Your task to perform on an android device: change the clock display to analog Image 0: 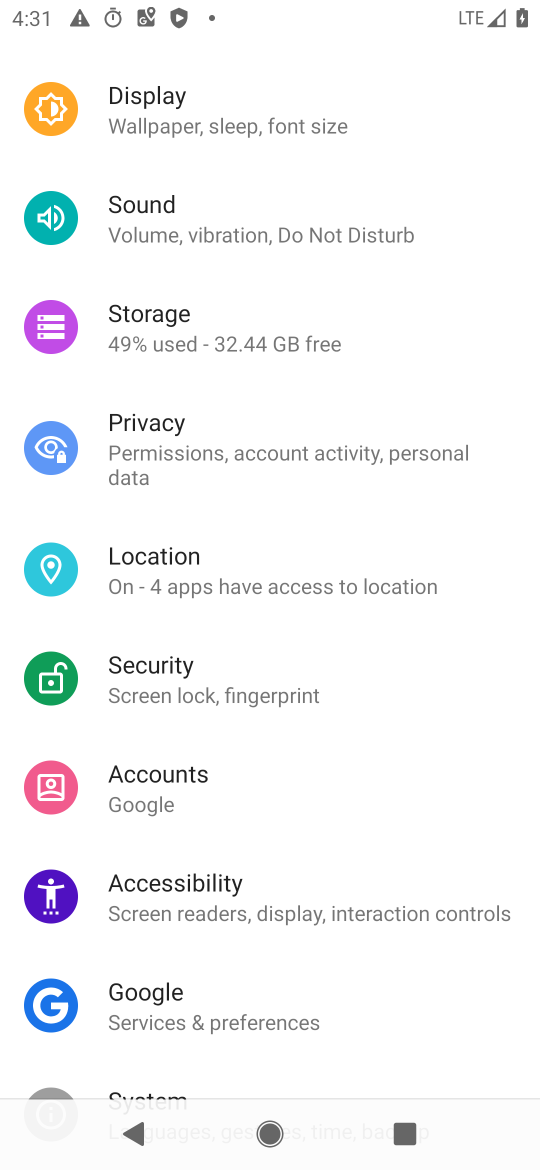
Step 0: press home button
Your task to perform on an android device: change the clock display to analog Image 1: 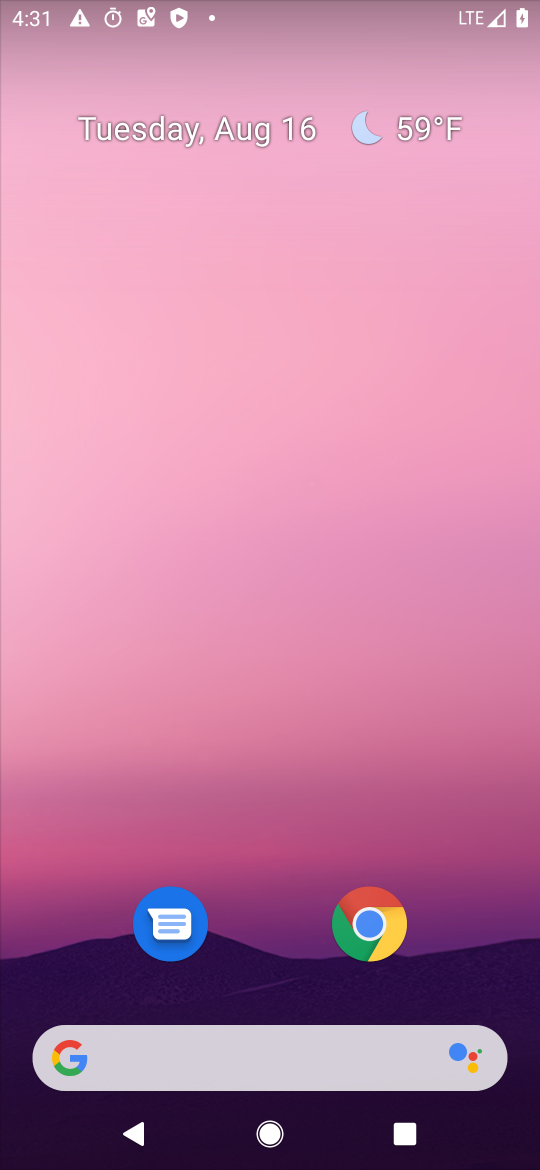
Step 1: drag from (284, 1009) to (290, 176)
Your task to perform on an android device: change the clock display to analog Image 2: 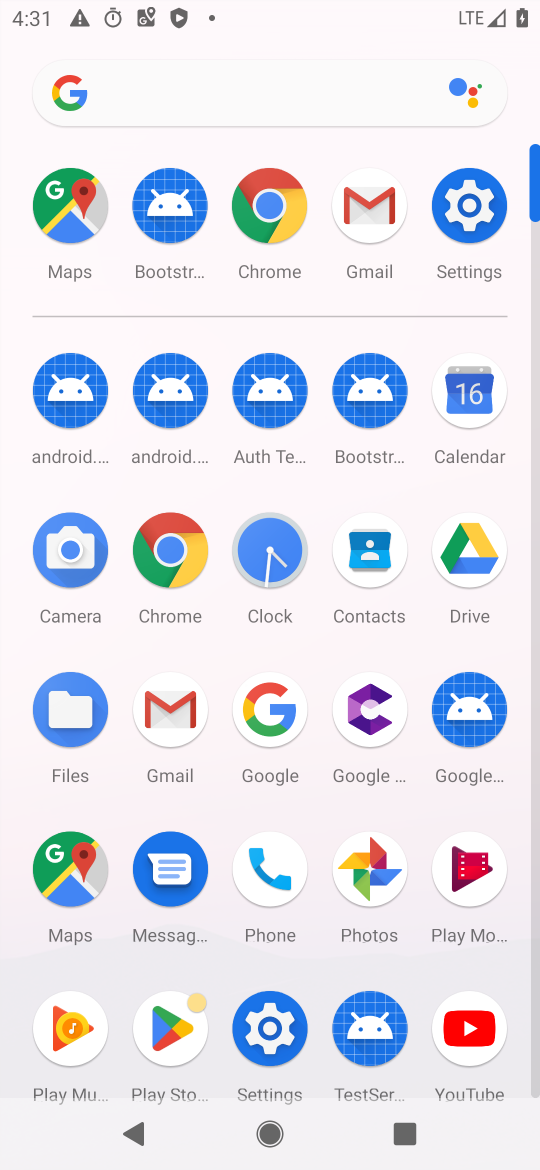
Step 2: click (296, 554)
Your task to perform on an android device: change the clock display to analog Image 3: 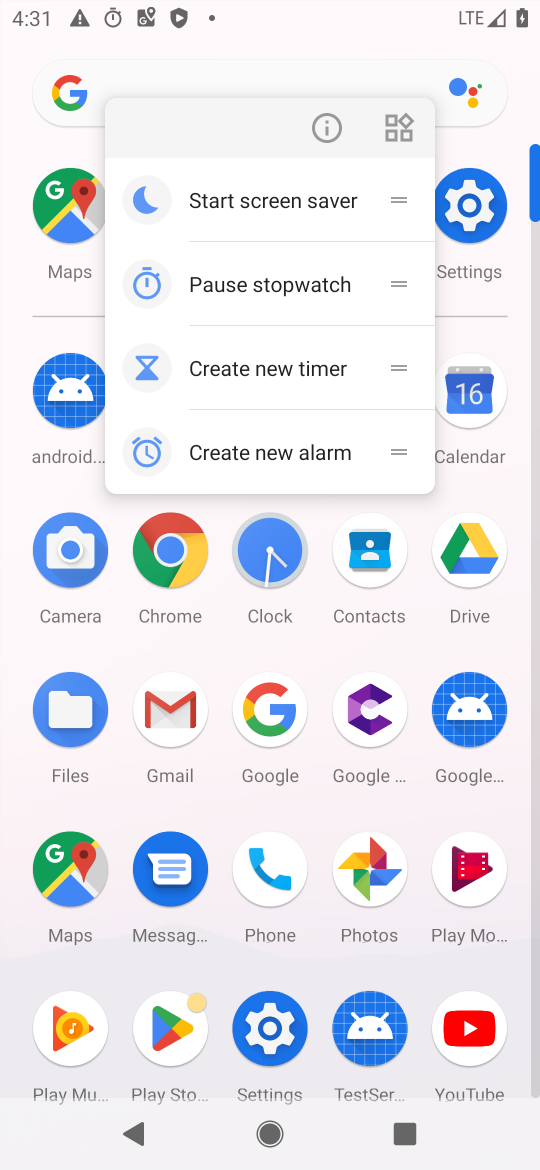
Step 3: click (257, 554)
Your task to perform on an android device: change the clock display to analog Image 4: 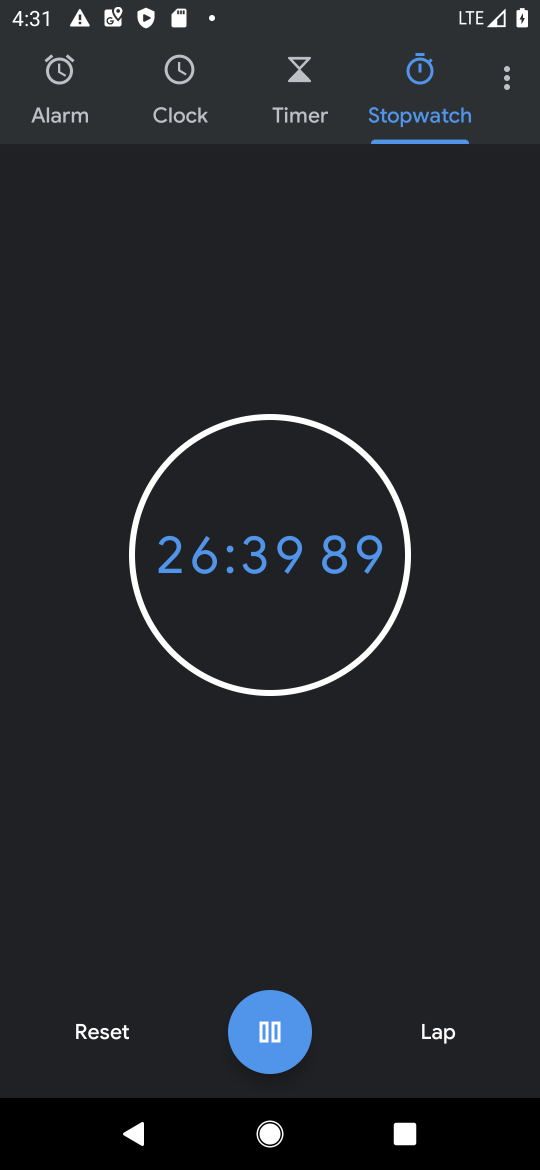
Step 4: click (518, 58)
Your task to perform on an android device: change the clock display to analog Image 5: 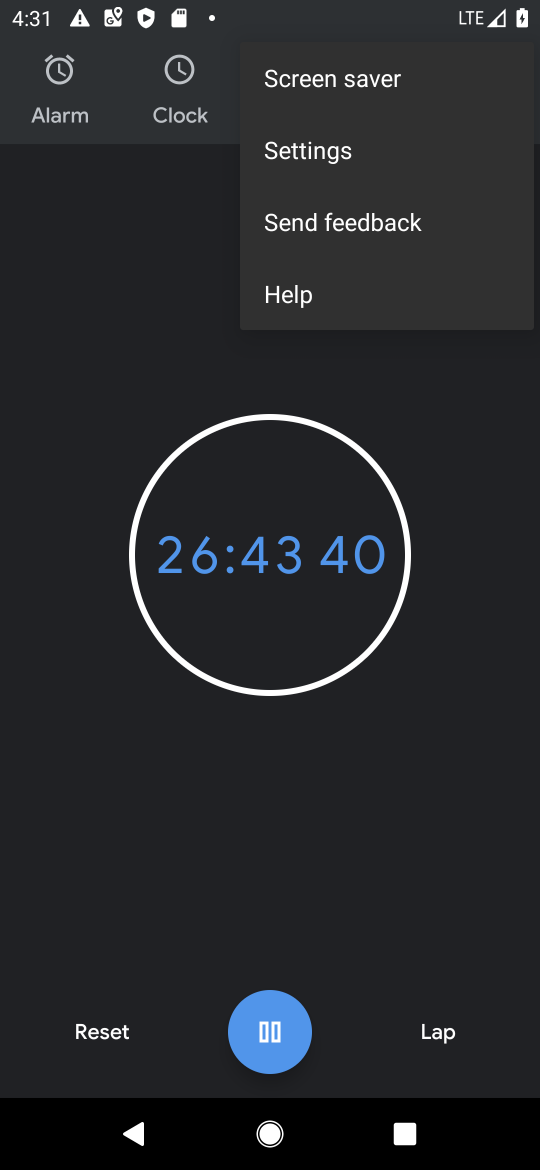
Step 5: click (334, 179)
Your task to perform on an android device: change the clock display to analog Image 6: 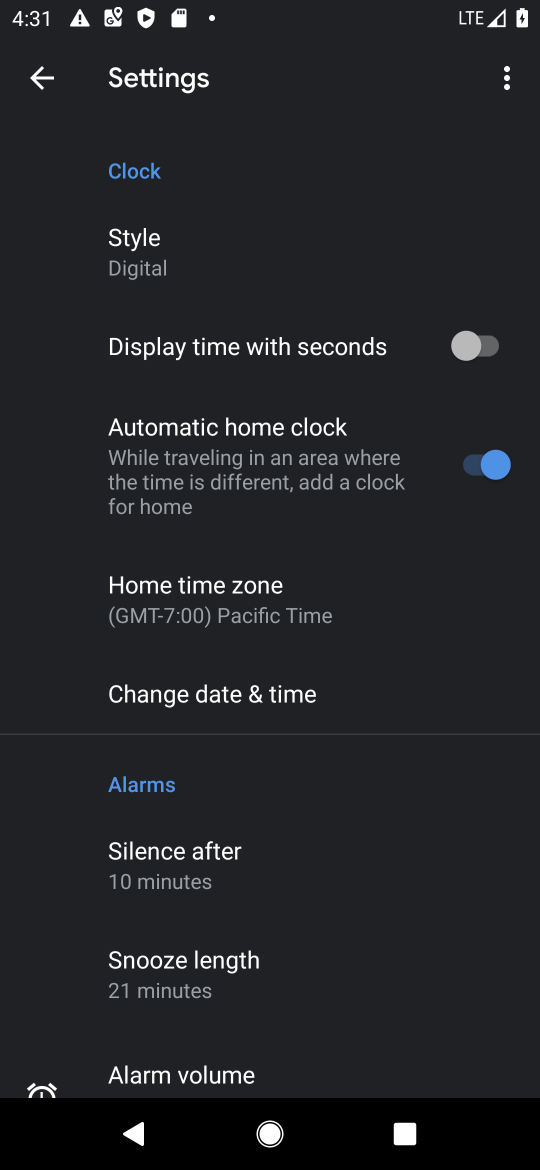
Step 6: click (238, 238)
Your task to perform on an android device: change the clock display to analog Image 7: 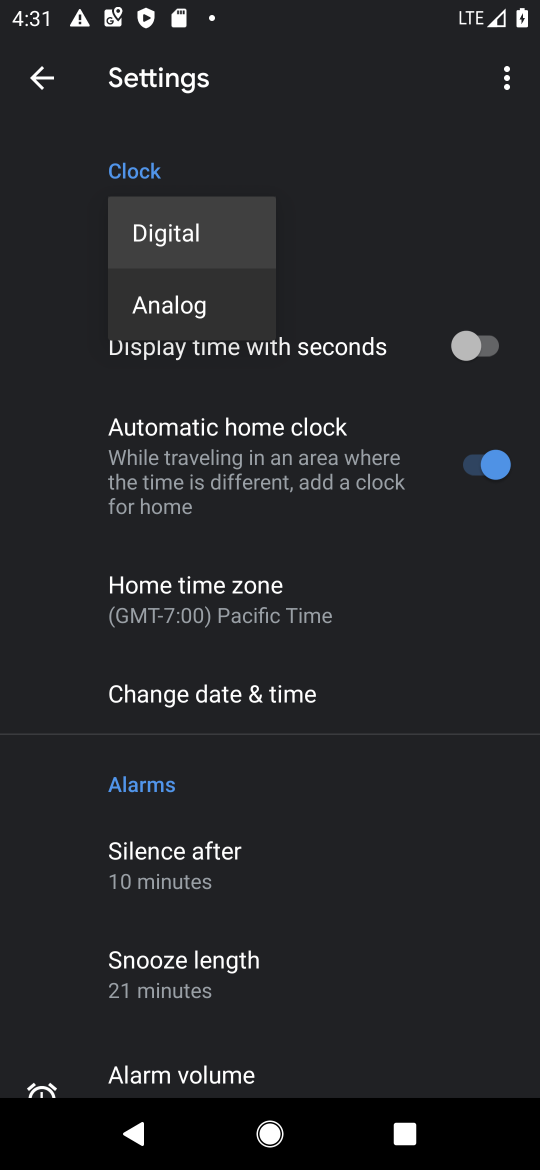
Step 7: click (188, 295)
Your task to perform on an android device: change the clock display to analog Image 8: 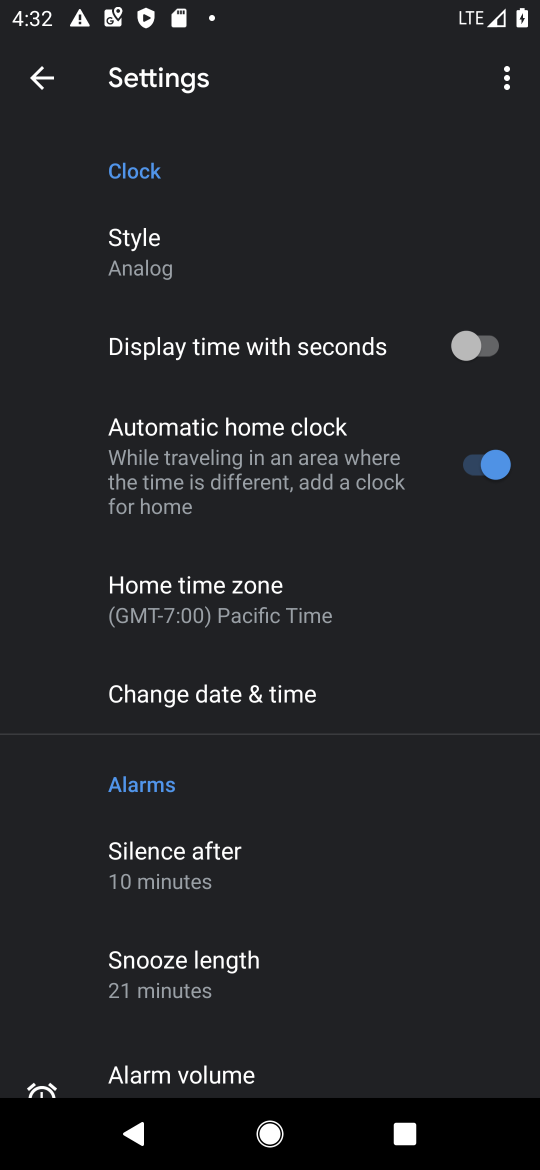
Step 8: task complete